Your task to perform on an android device: turn off notifications in google photos Image 0: 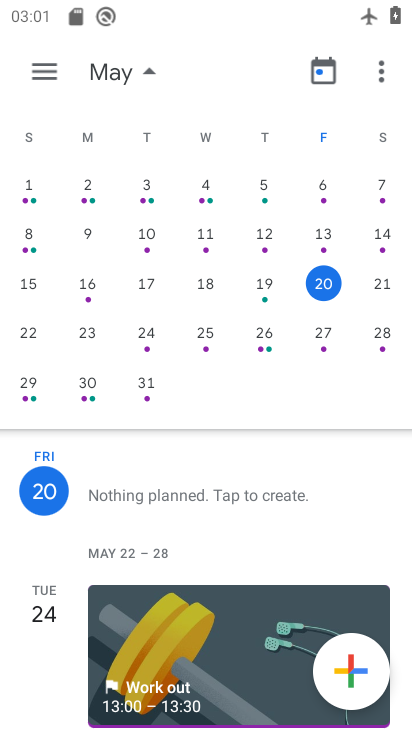
Step 0: press home button
Your task to perform on an android device: turn off notifications in google photos Image 1: 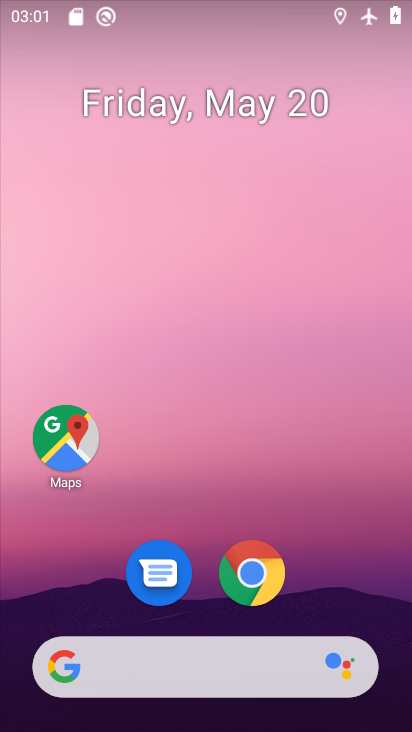
Step 1: drag from (198, 614) to (199, 189)
Your task to perform on an android device: turn off notifications in google photos Image 2: 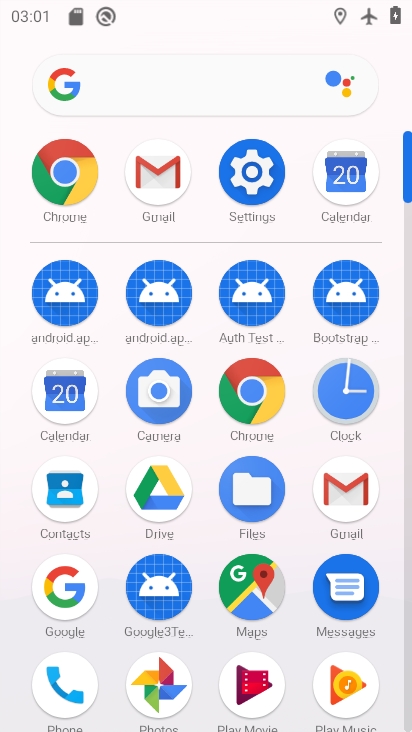
Step 2: click (169, 666)
Your task to perform on an android device: turn off notifications in google photos Image 3: 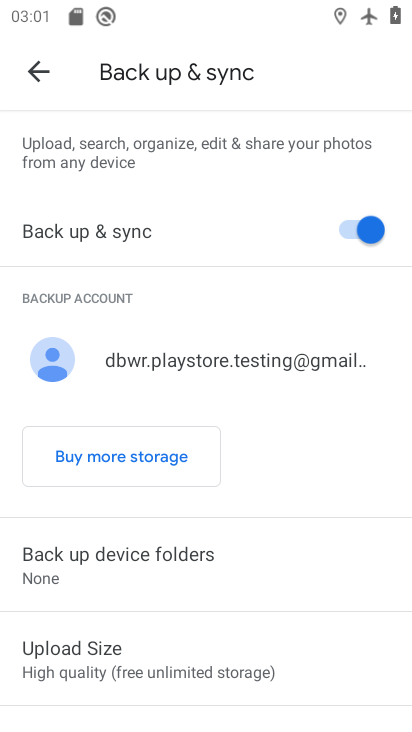
Step 3: drag from (156, 558) to (197, 258)
Your task to perform on an android device: turn off notifications in google photos Image 4: 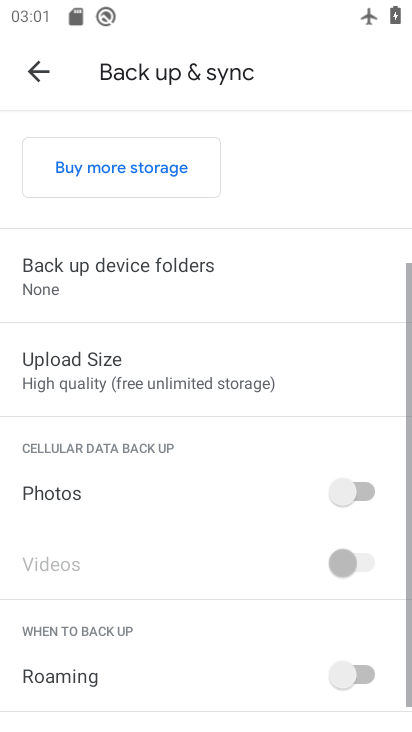
Step 4: drag from (197, 596) to (243, 241)
Your task to perform on an android device: turn off notifications in google photos Image 5: 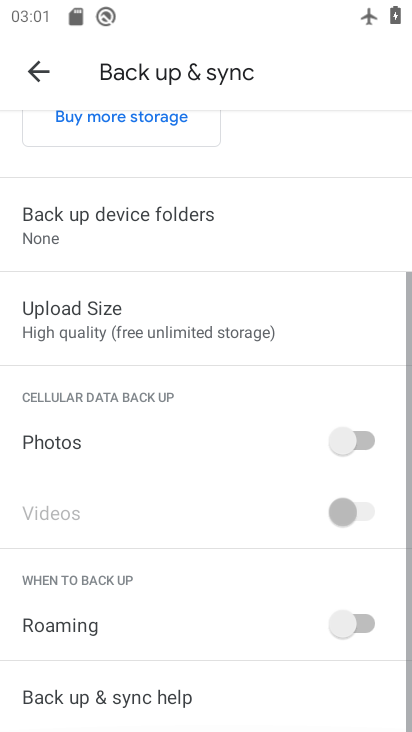
Step 5: click (43, 68)
Your task to perform on an android device: turn off notifications in google photos Image 6: 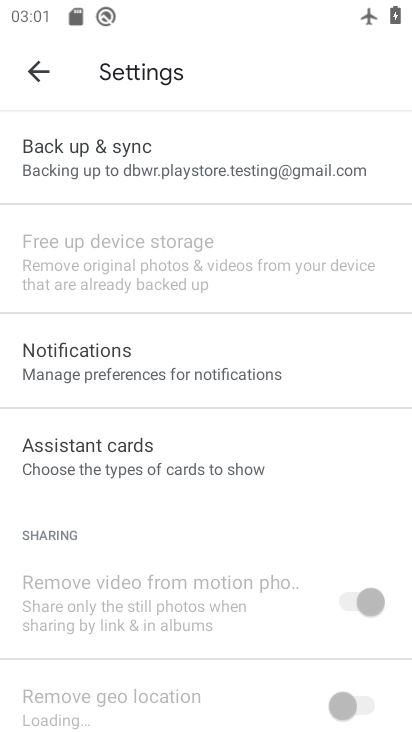
Step 6: drag from (215, 631) to (215, 351)
Your task to perform on an android device: turn off notifications in google photos Image 7: 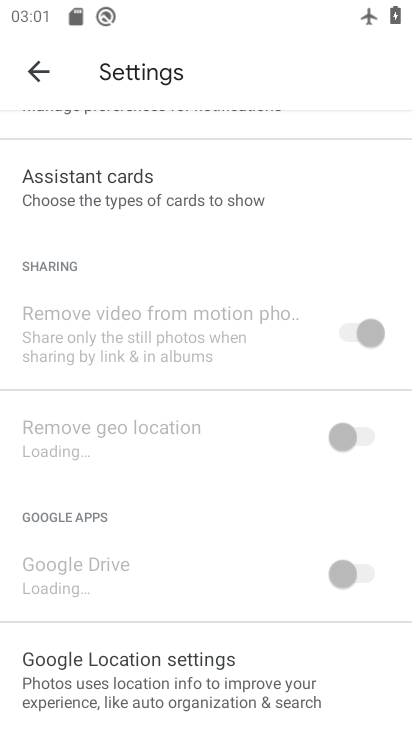
Step 7: drag from (191, 316) to (191, 572)
Your task to perform on an android device: turn off notifications in google photos Image 8: 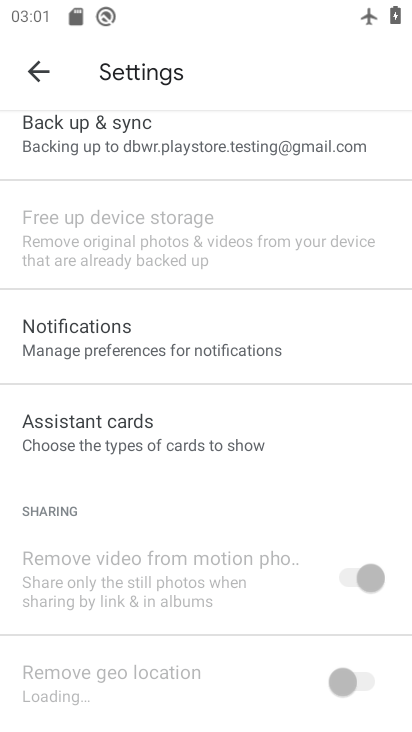
Step 8: click (120, 336)
Your task to perform on an android device: turn off notifications in google photos Image 9: 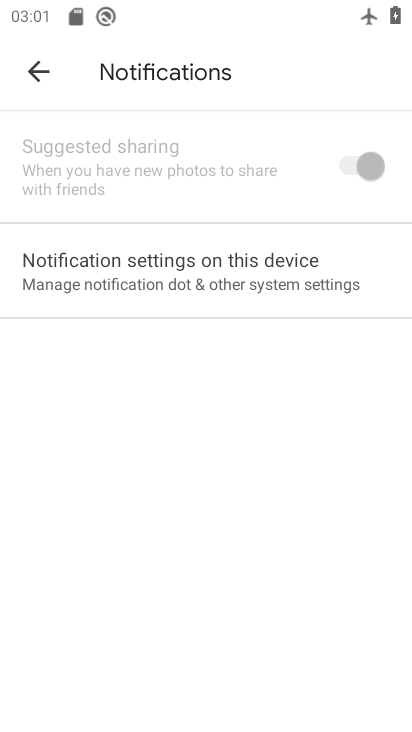
Step 9: click (196, 269)
Your task to perform on an android device: turn off notifications in google photos Image 10: 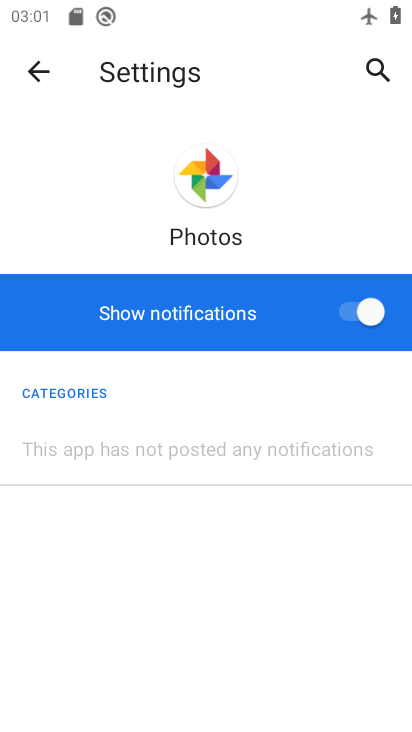
Step 10: click (342, 312)
Your task to perform on an android device: turn off notifications in google photos Image 11: 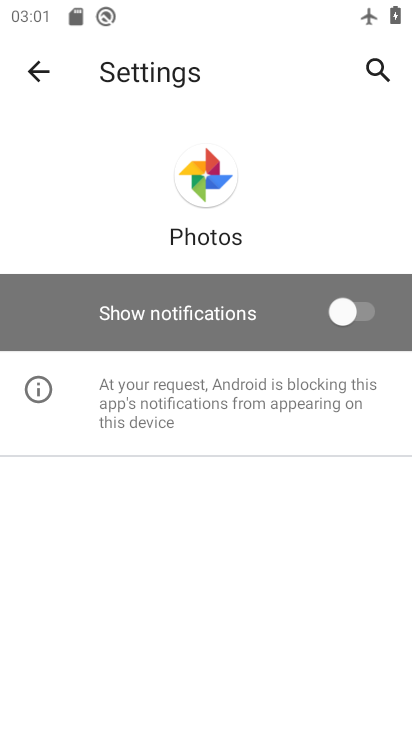
Step 11: task complete